Your task to perform on an android device: turn vacation reply on in the gmail app Image 0: 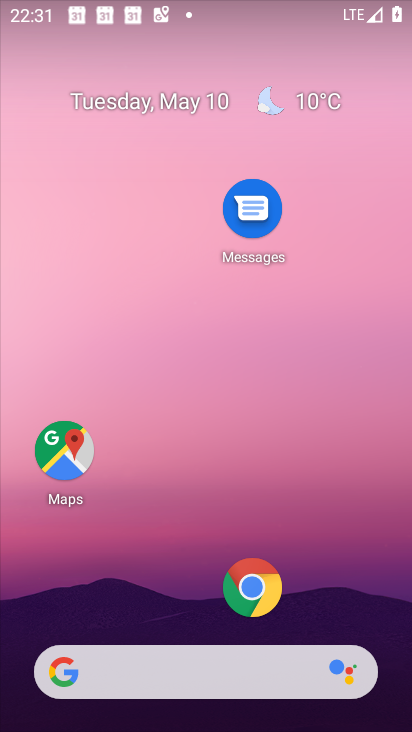
Step 0: drag from (162, 615) to (195, 185)
Your task to perform on an android device: turn vacation reply on in the gmail app Image 1: 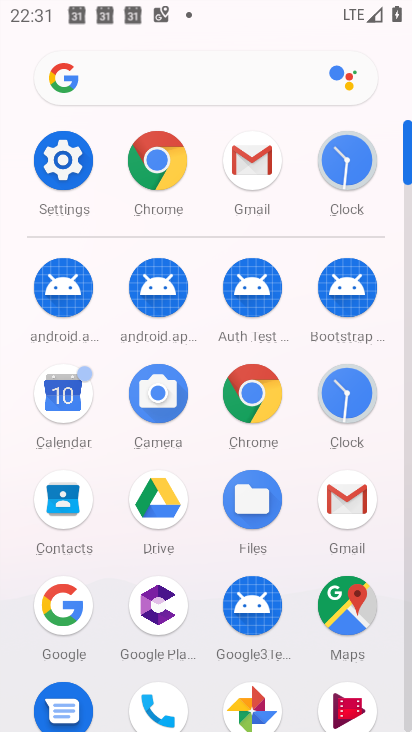
Step 1: click (333, 524)
Your task to perform on an android device: turn vacation reply on in the gmail app Image 2: 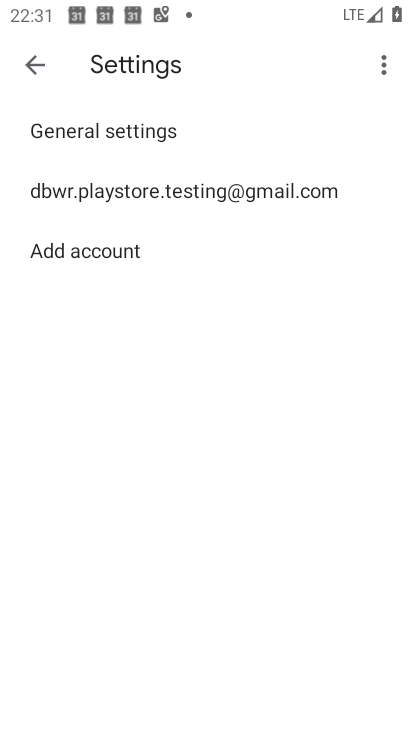
Step 2: click (135, 188)
Your task to perform on an android device: turn vacation reply on in the gmail app Image 3: 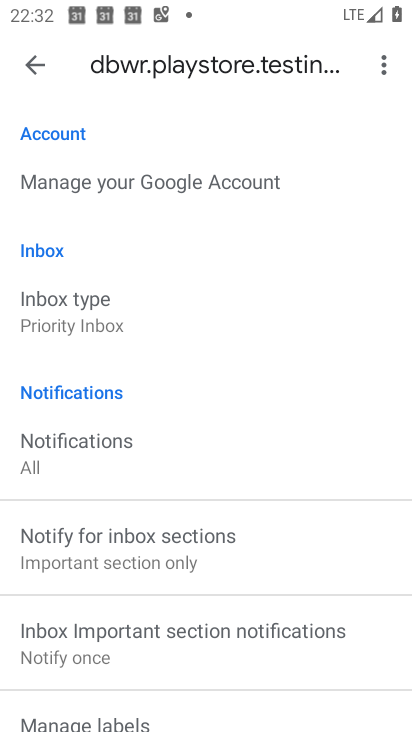
Step 3: drag from (177, 536) to (243, 199)
Your task to perform on an android device: turn vacation reply on in the gmail app Image 4: 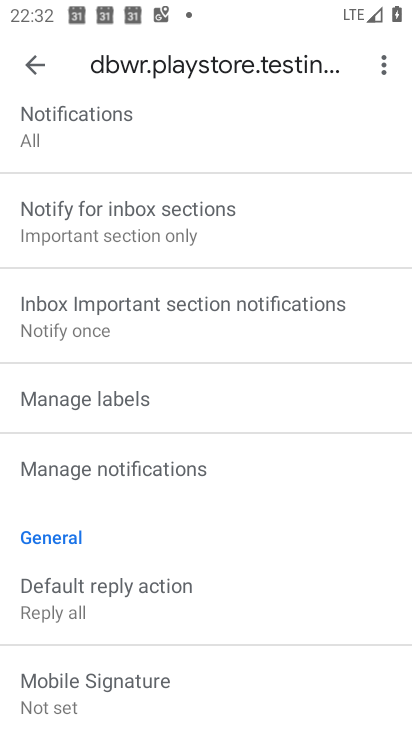
Step 4: drag from (135, 586) to (170, 266)
Your task to perform on an android device: turn vacation reply on in the gmail app Image 5: 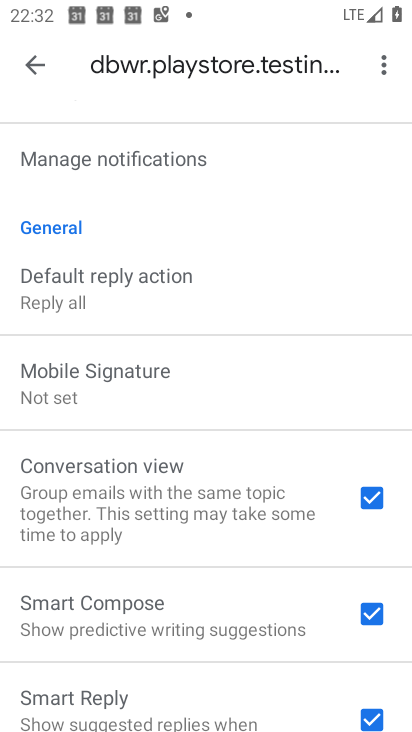
Step 5: drag from (135, 604) to (185, 287)
Your task to perform on an android device: turn vacation reply on in the gmail app Image 6: 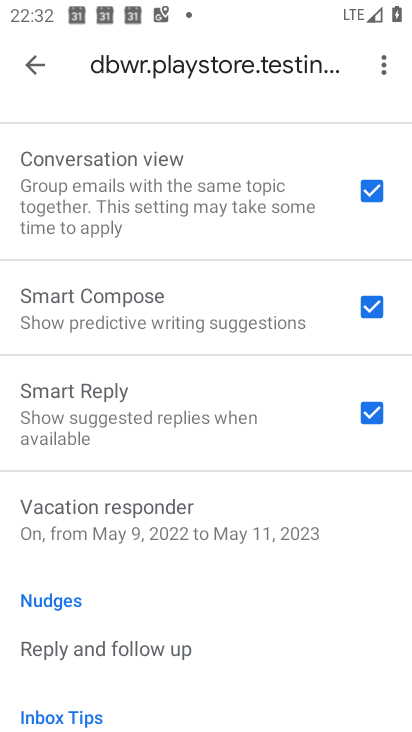
Step 6: click (141, 518)
Your task to perform on an android device: turn vacation reply on in the gmail app Image 7: 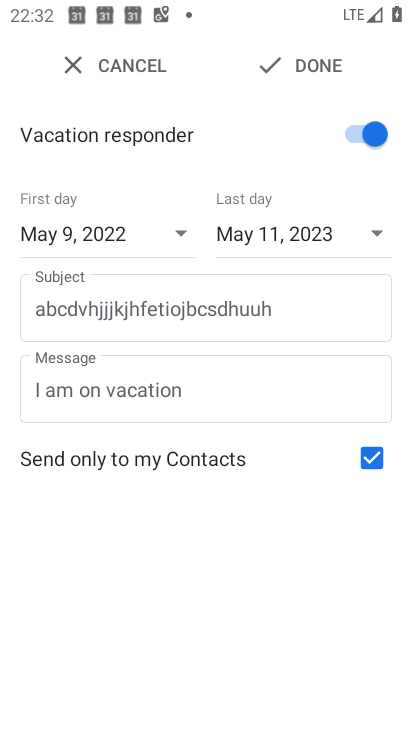
Step 7: task complete